Your task to perform on an android device: snooze an email in the gmail app Image 0: 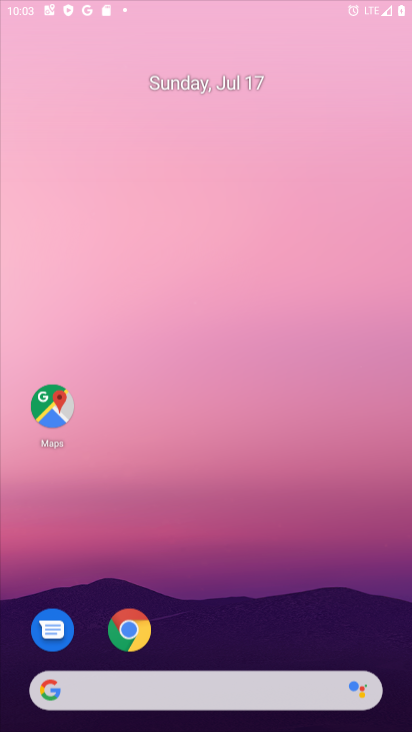
Step 0: press home button
Your task to perform on an android device: snooze an email in the gmail app Image 1: 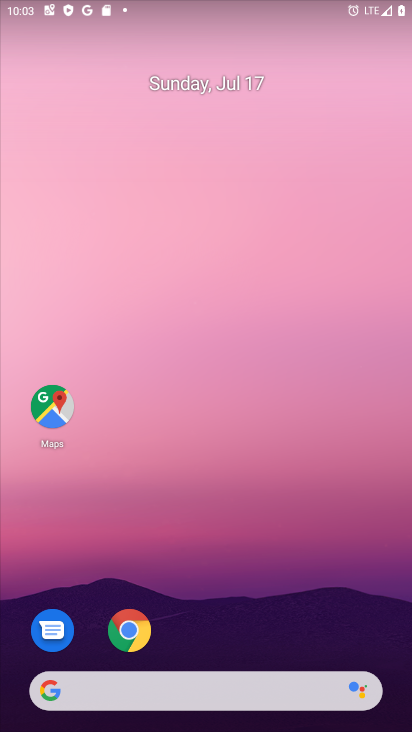
Step 1: drag from (212, 553) to (224, 37)
Your task to perform on an android device: snooze an email in the gmail app Image 2: 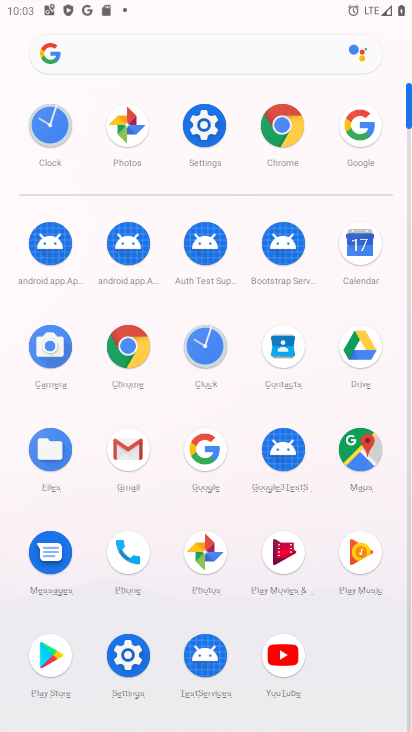
Step 2: click (126, 443)
Your task to perform on an android device: snooze an email in the gmail app Image 3: 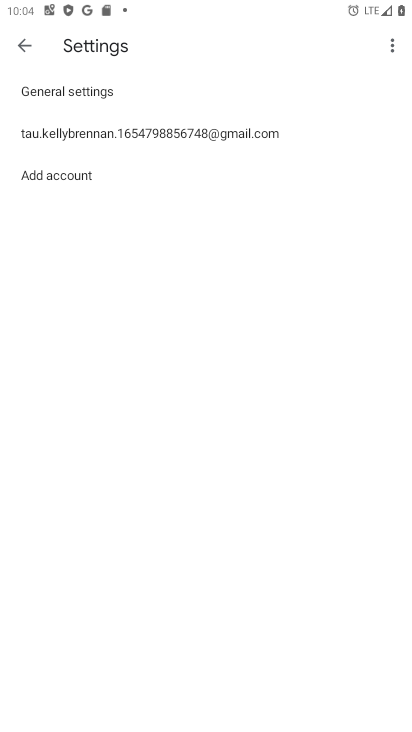
Step 3: click (24, 48)
Your task to perform on an android device: snooze an email in the gmail app Image 4: 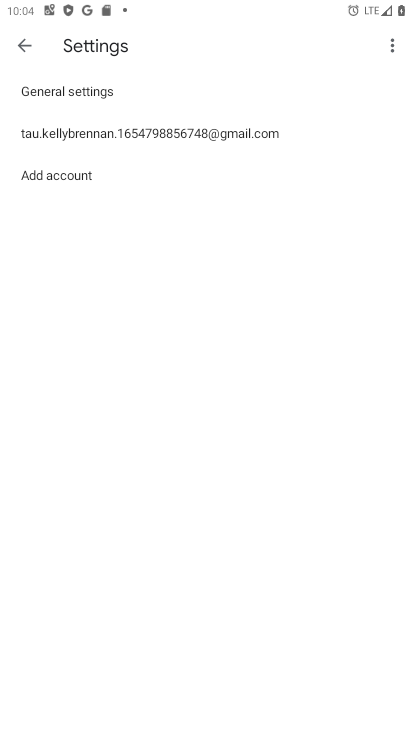
Step 4: click (24, 48)
Your task to perform on an android device: snooze an email in the gmail app Image 5: 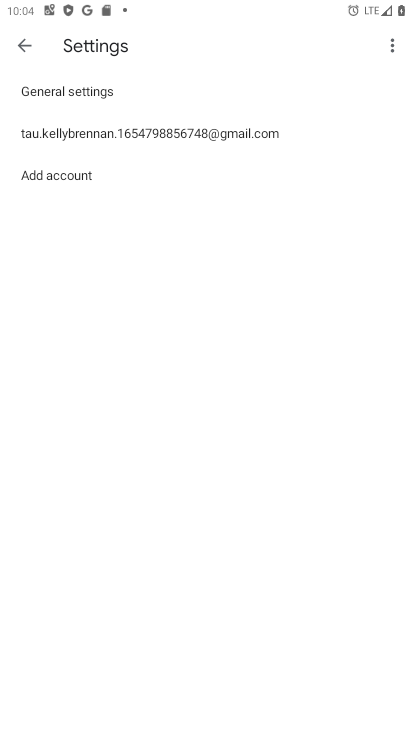
Step 5: click (24, 48)
Your task to perform on an android device: snooze an email in the gmail app Image 6: 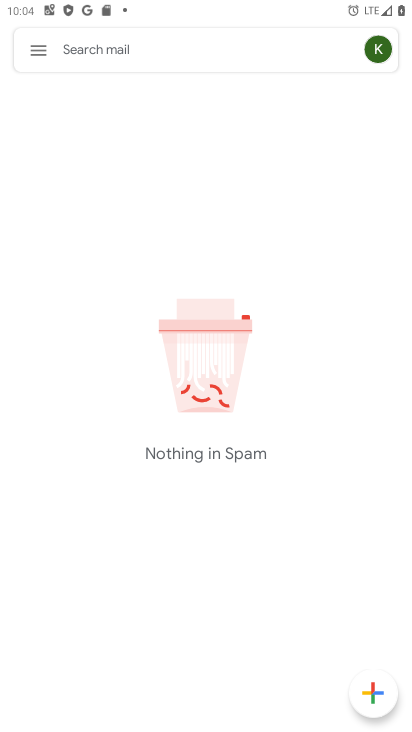
Step 6: task complete